Your task to perform on an android device: Show me the alarms in the clock app Image 0: 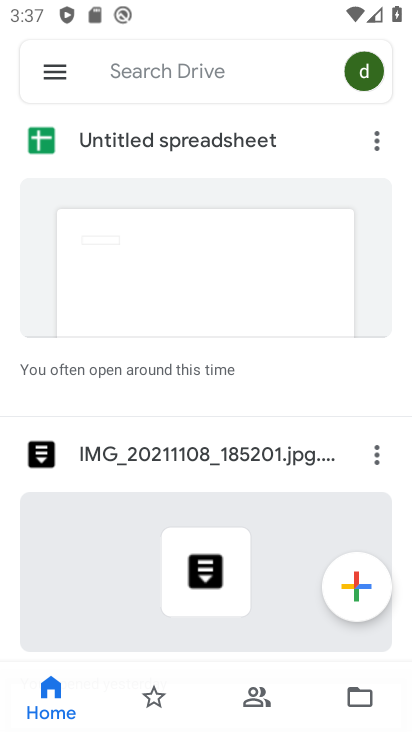
Step 0: press home button
Your task to perform on an android device: Show me the alarms in the clock app Image 1: 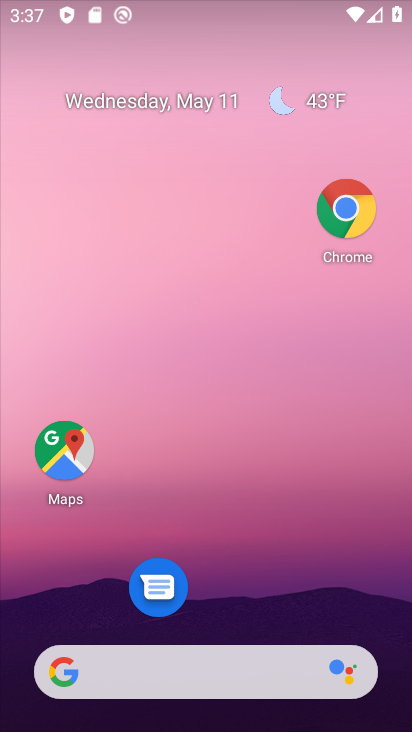
Step 1: click (402, 321)
Your task to perform on an android device: Show me the alarms in the clock app Image 2: 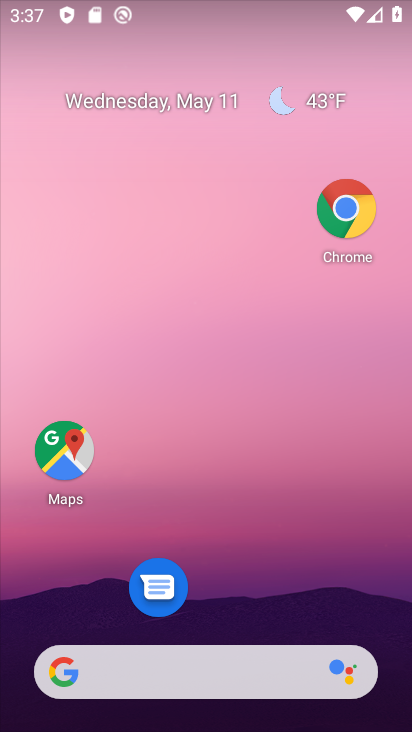
Step 2: drag from (246, 613) to (336, 228)
Your task to perform on an android device: Show me the alarms in the clock app Image 3: 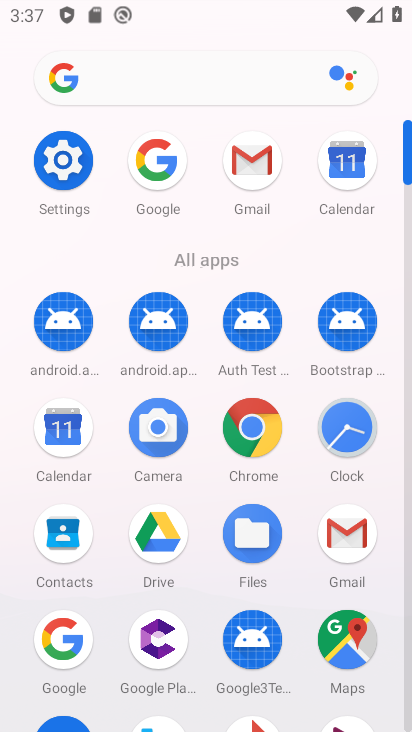
Step 3: click (337, 426)
Your task to perform on an android device: Show me the alarms in the clock app Image 4: 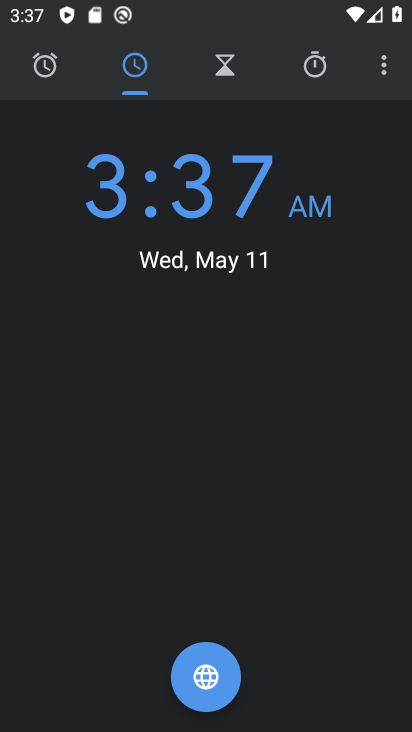
Step 4: click (378, 73)
Your task to perform on an android device: Show me the alarms in the clock app Image 5: 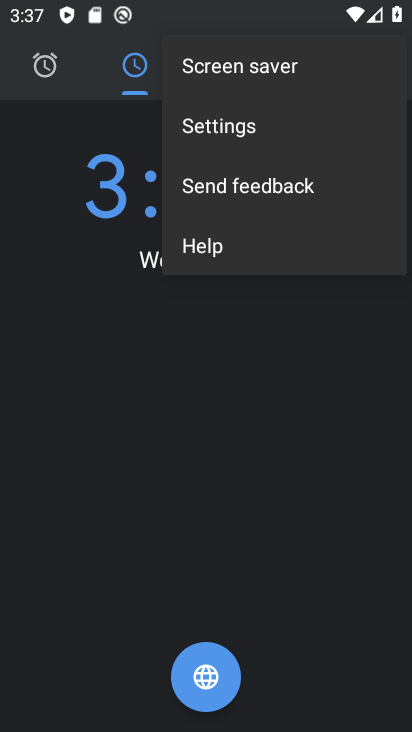
Step 5: click (69, 73)
Your task to perform on an android device: Show me the alarms in the clock app Image 6: 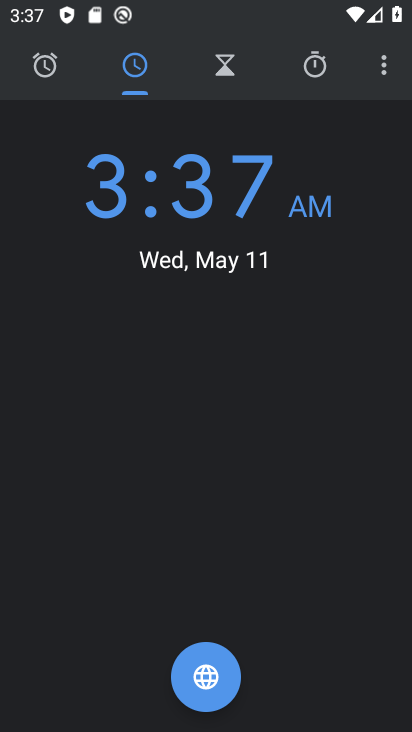
Step 6: click (50, 76)
Your task to perform on an android device: Show me the alarms in the clock app Image 7: 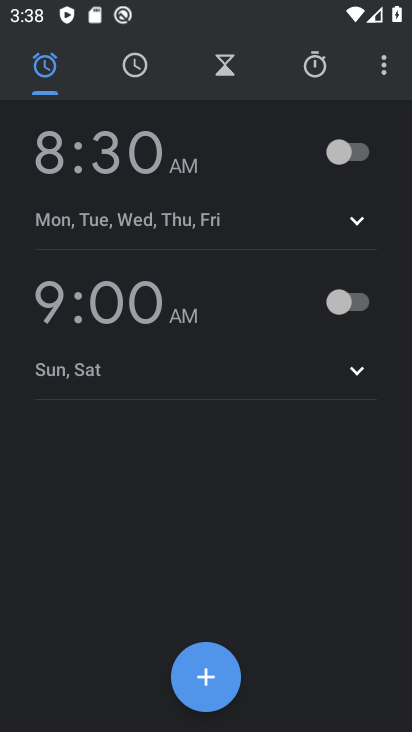
Step 7: task complete